Your task to perform on an android device: turn off location Image 0: 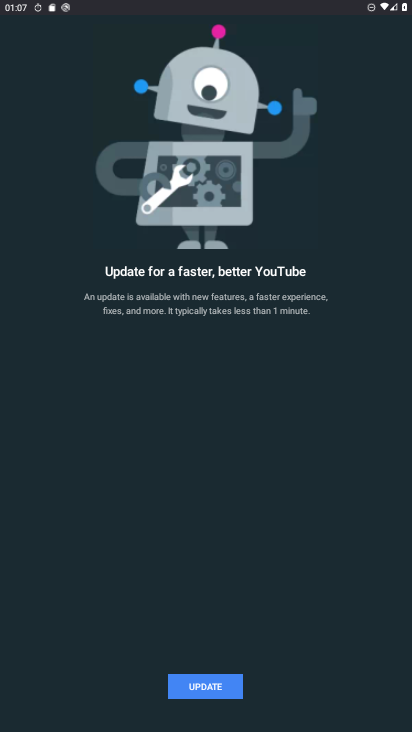
Step 0: press home button
Your task to perform on an android device: turn off location Image 1: 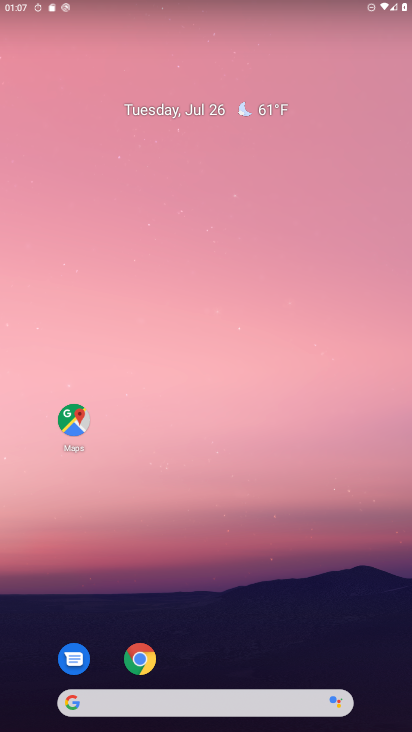
Step 1: drag from (111, 556) to (231, 215)
Your task to perform on an android device: turn off location Image 2: 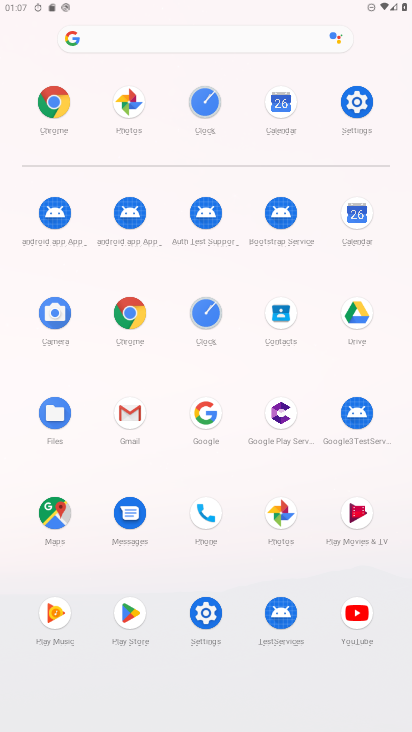
Step 2: click (202, 615)
Your task to perform on an android device: turn off location Image 3: 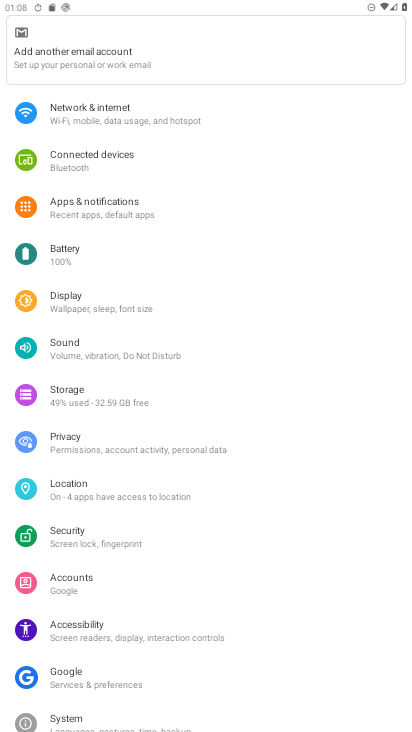
Step 3: click (86, 497)
Your task to perform on an android device: turn off location Image 4: 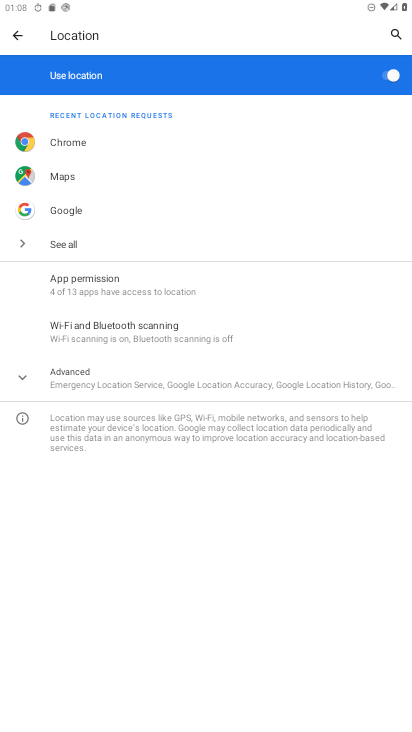
Step 4: click (390, 74)
Your task to perform on an android device: turn off location Image 5: 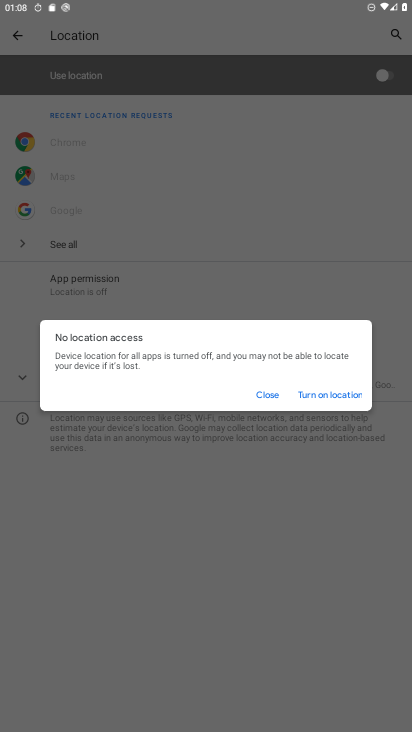
Step 5: task complete